Your task to perform on an android device: Clear all items from cart on ebay.com. Search for "alienware area 51" on ebay.com, select the first entry, add it to the cart, then select checkout. Image 0: 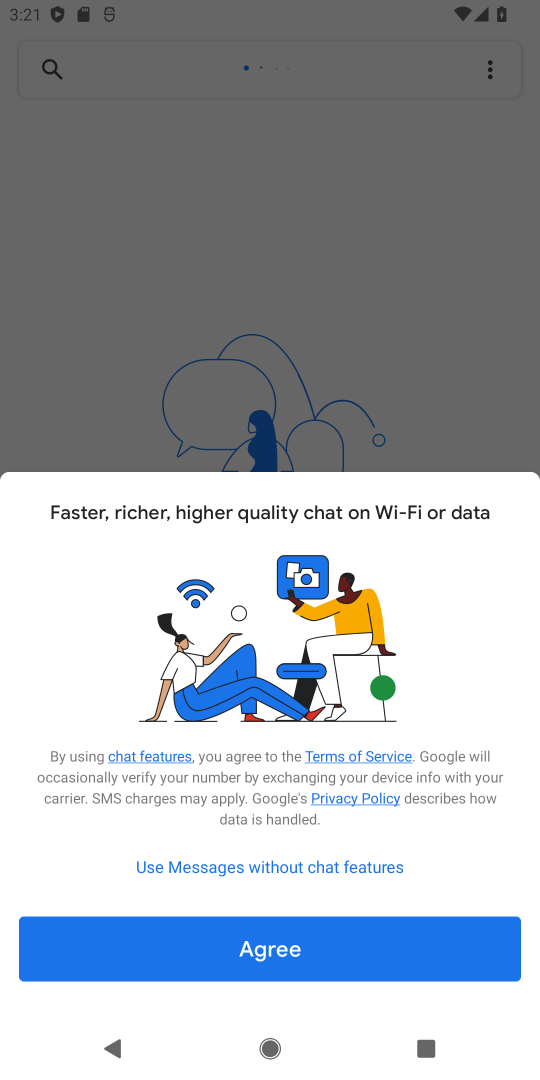
Step 0: press home button
Your task to perform on an android device: Clear all items from cart on ebay.com. Search for "alienware area 51" on ebay.com, select the first entry, add it to the cart, then select checkout. Image 1: 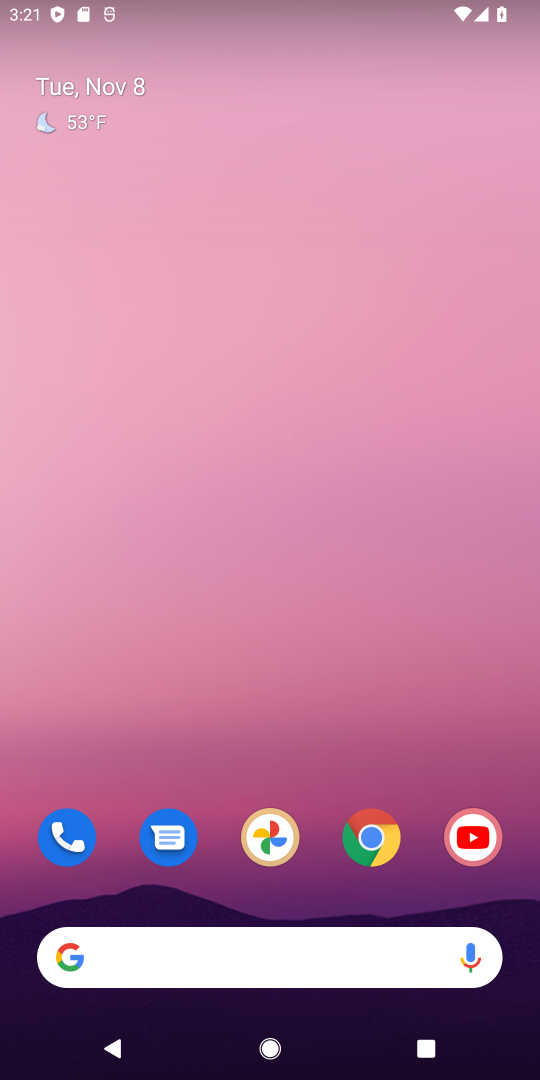
Step 1: click (381, 847)
Your task to perform on an android device: Clear all items from cart on ebay.com. Search for "alienware area 51" on ebay.com, select the first entry, add it to the cart, then select checkout. Image 2: 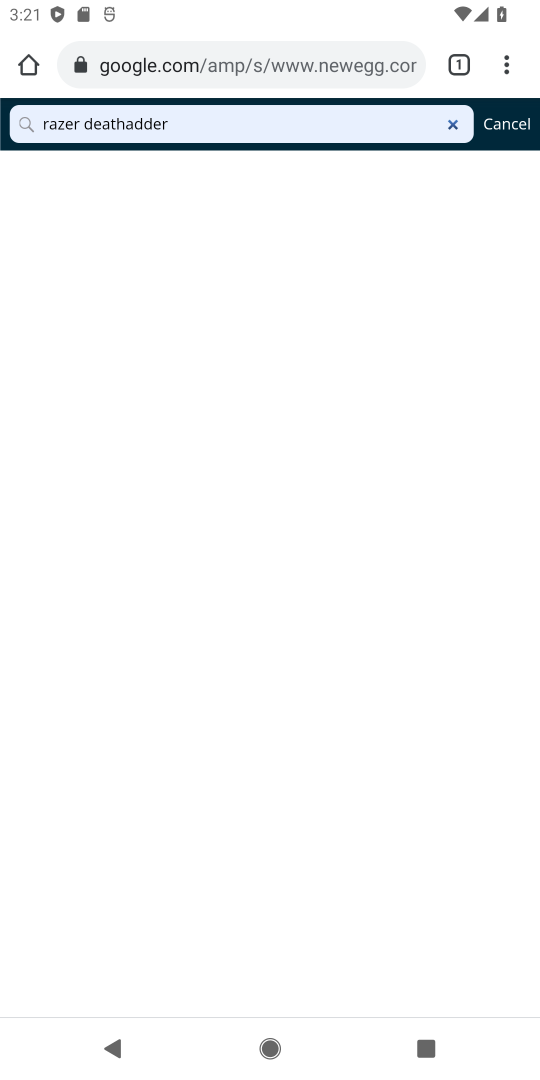
Step 2: click (249, 70)
Your task to perform on an android device: Clear all items from cart on ebay.com. Search for "alienware area 51" on ebay.com, select the first entry, add it to the cart, then select checkout. Image 3: 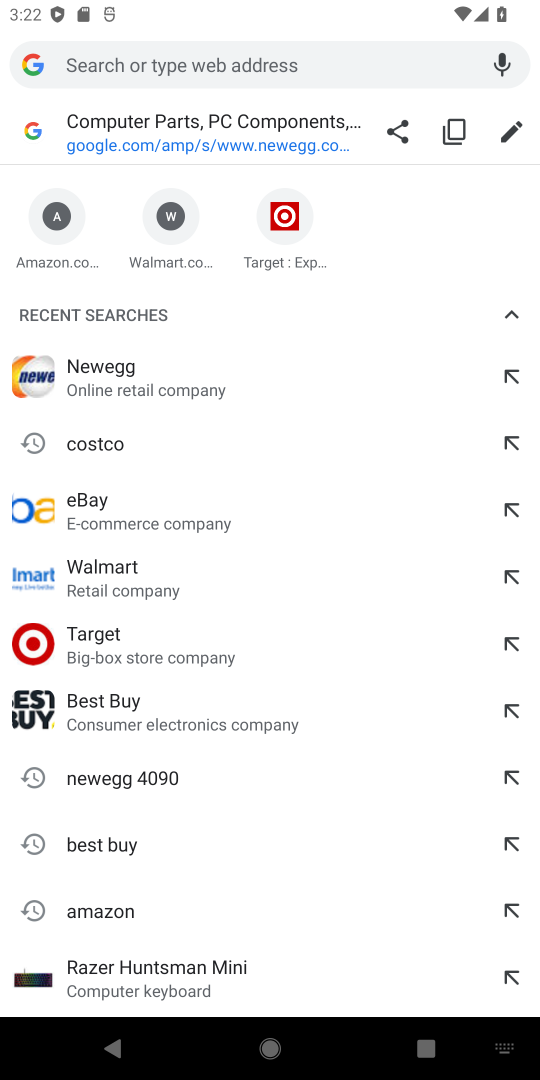
Step 3: click (88, 506)
Your task to perform on an android device: Clear all items from cart on ebay.com. Search for "alienware area 51" on ebay.com, select the first entry, add it to the cart, then select checkout. Image 4: 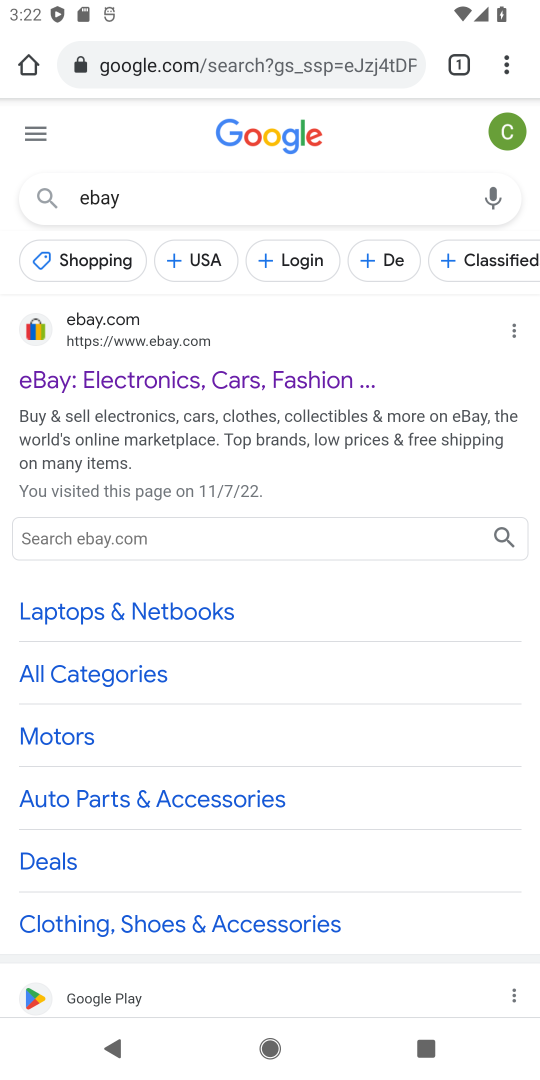
Step 4: click (116, 384)
Your task to perform on an android device: Clear all items from cart on ebay.com. Search for "alienware area 51" on ebay.com, select the first entry, add it to the cart, then select checkout. Image 5: 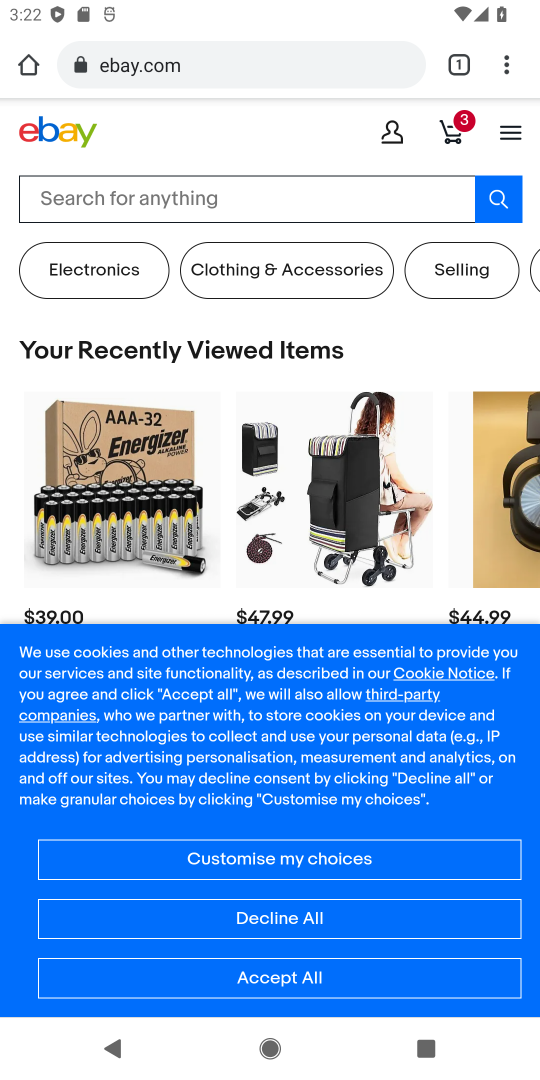
Step 5: click (449, 130)
Your task to perform on an android device: Clear all items from cart on ebay.com. Search for "alienware area 51" on ebay.com, select the first entry, add it to the cart, then select checkout. Image 6: 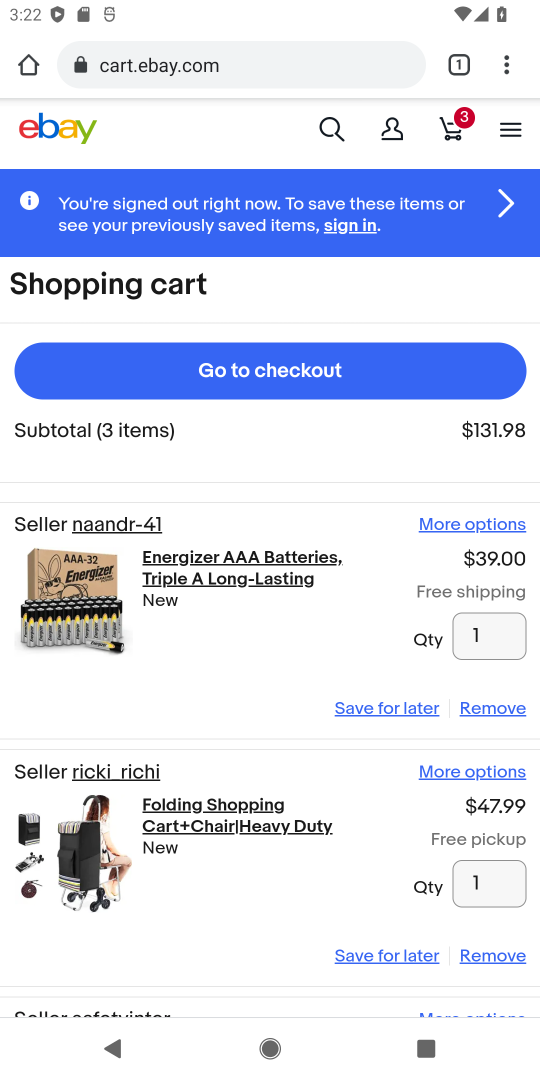
Step 6: click (479, 705)
Your task to perform on an android device: Clear all items from cart on ebay.com. Search for "alienware area 51" on ebay.com, select the first entry, add it to the cart, then select checkout. Image 7: 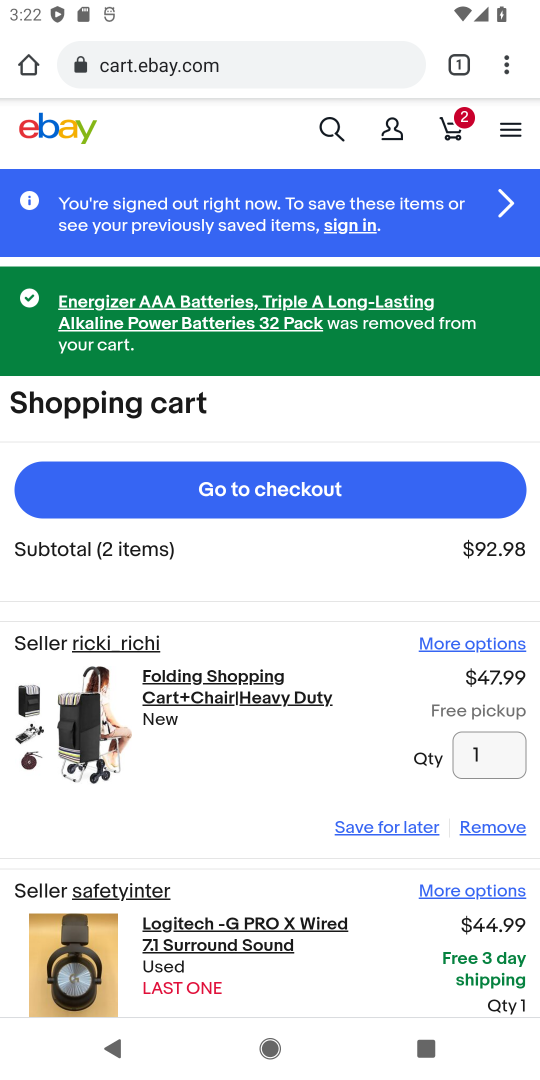
Step 7: click (496, 821)
Your task to perform on an android device: Clear all items from cart on ebay.com. Search for "alienware area 51" on ebay.com, select the first entry, add it to the cart, then select checkout. Image 8: 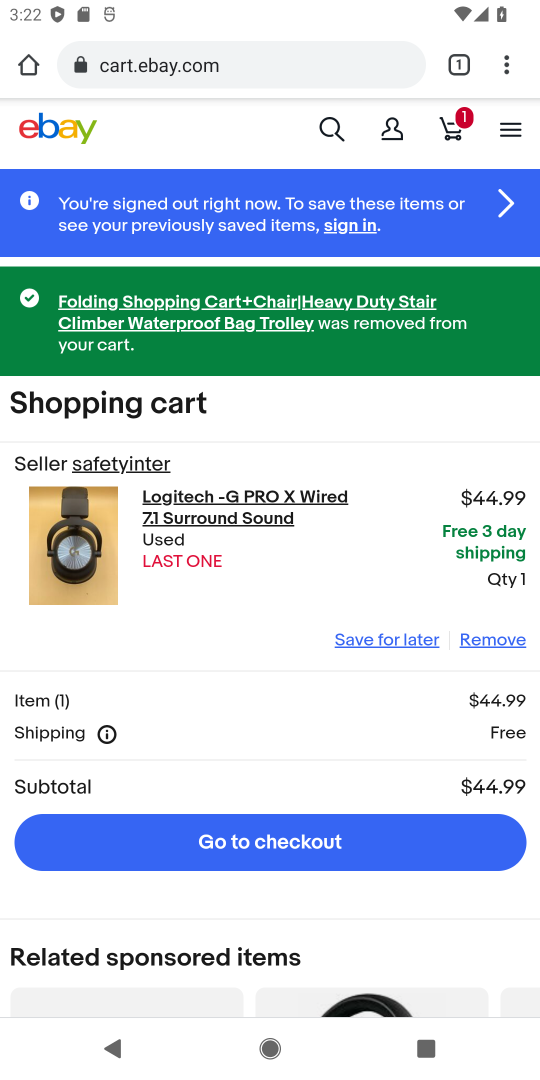
Step 8: click (478, 639)
Your task to perform on an android device: Clear all items from cart on ebay.com. Search for "alienware area 51" on ebay.com, select the first entry, add it to the cart, then select checkout. Image 9: 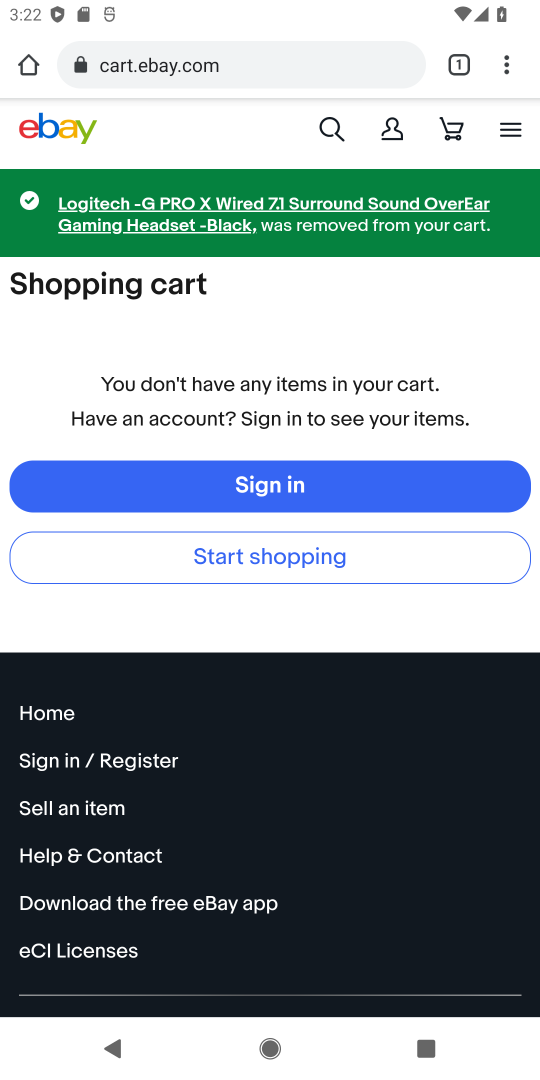
Step 9: click (332, 126)
Your task to perform on an android device: Clear all items from cart on ebay.com. Search for "alienware area 51" on ebay.com, select the first entry, add it to the cart, then select checkout. Image 10: 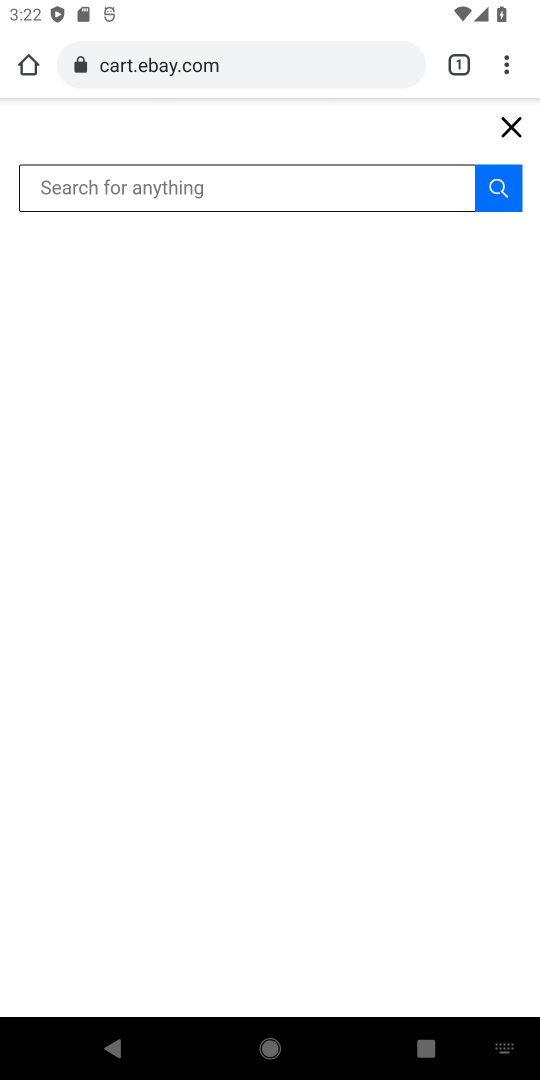
Step 10: type "alienware area 51"
Your task to perform on an android device: Clear all items from cart on ebay.com. Search for "alienware area 51" on ebay.com, select the first entry, add it to the cart, then select checkout. Image 11: 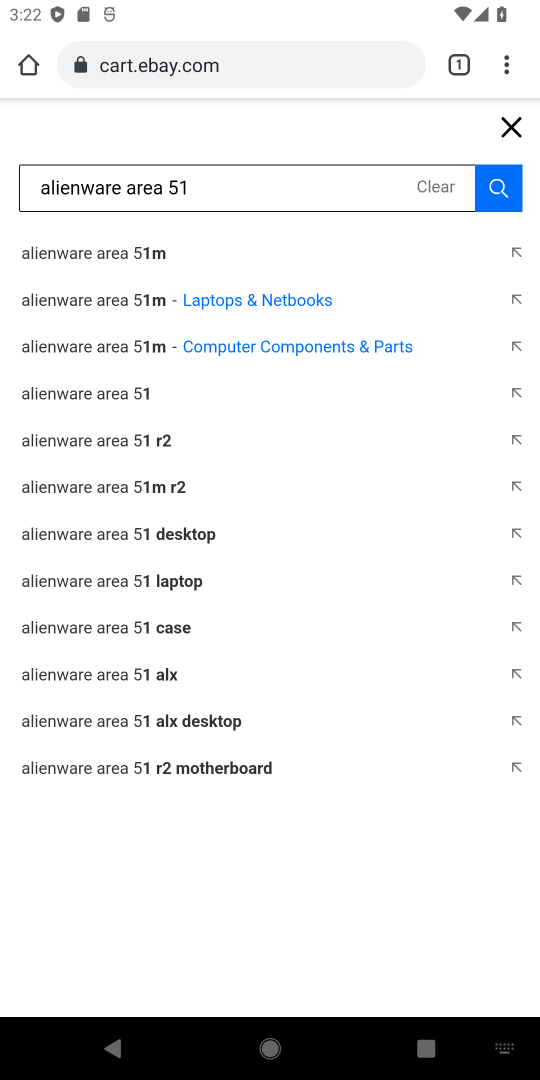
Step 11: click (147, 256)
Your task to perform on an android device: Clear all items from cart on ebay.com. Search for "alienware area 51" on ebay.com, select the first entry, add it to the cart, then select checkout. Image 12: 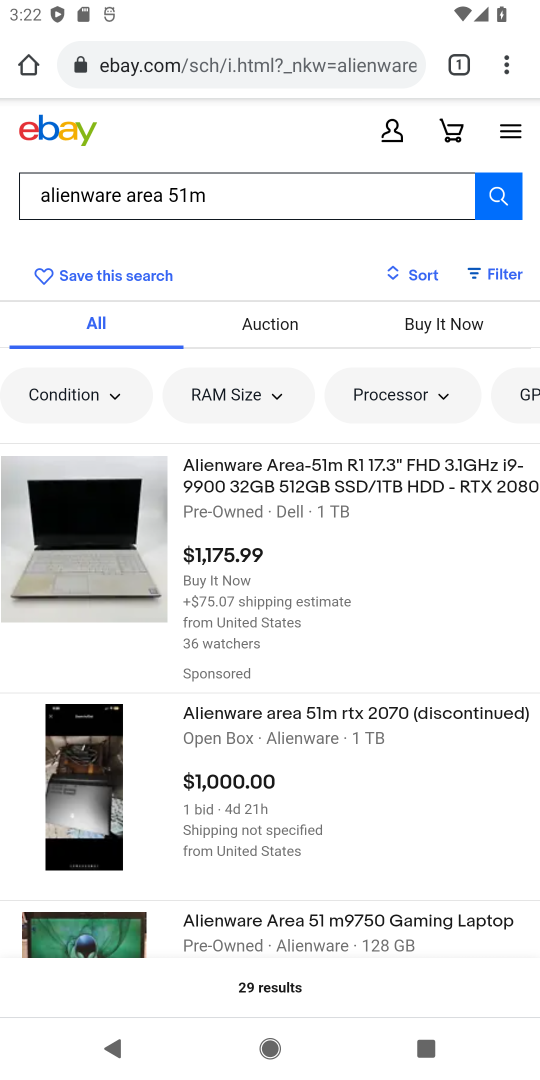
Step 12: click (291, 487)
Your task to perform on an android device: Clear all items from cart on ebay.com. Search for "alienware area 51" on ebay.com, select the first entry, add it to the cart, then select checkout. Image 13: 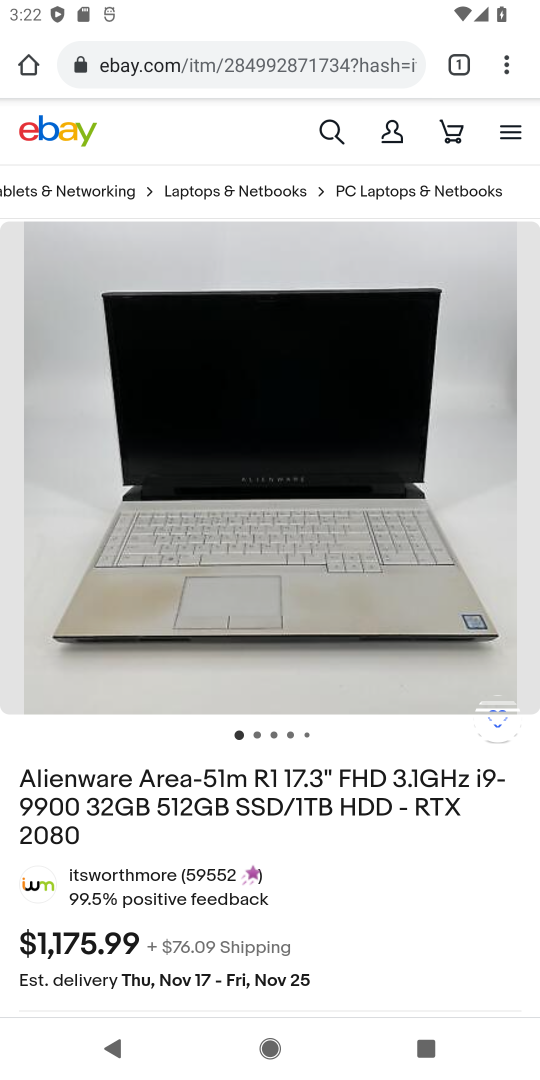
Step 13: drag from (332, 659) to (247, 409)
Your task to perform on an android device: Clear all items from cart on ebay.com. Search for "alienware area 51" on ebay.com, select the first entry, add it to the cart, then select checkout. Image 14: 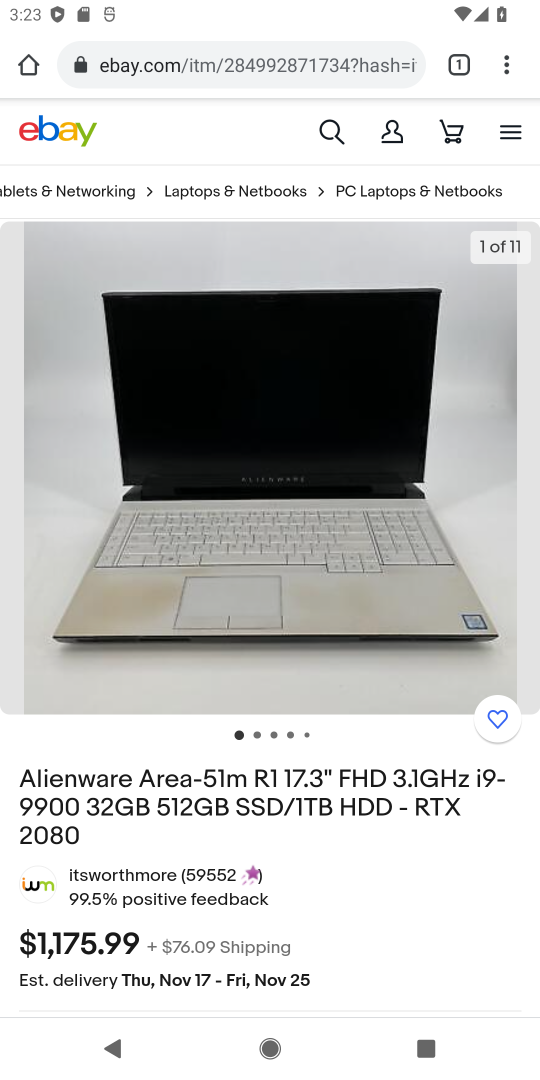
Step 14: drag from (363, 809) to (379, 464)
Your task to perform on an android device: Clear all items from cart on ebay.com. Search for "alienware area 51" on ebay.com, select the first entry, add it to the cart, then select checkout. Image 15: 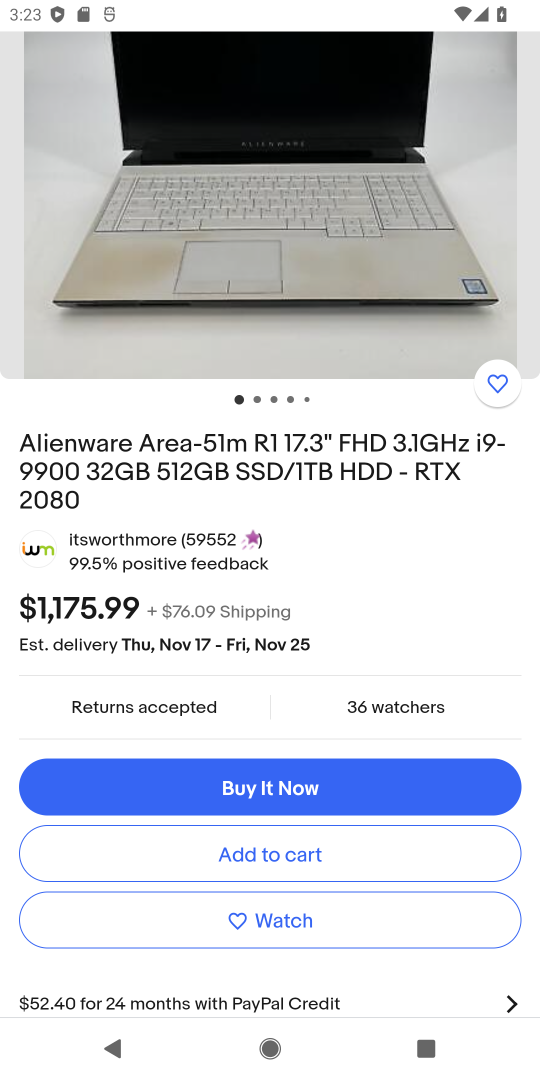
Step 15: click (274, 852)
Your task to perform on an android device: Clear all items from cart on ebay.com. Search for "alienware area 51" on ebay.com, select the first entry, add it to the cart, then select checkout. Image 16: 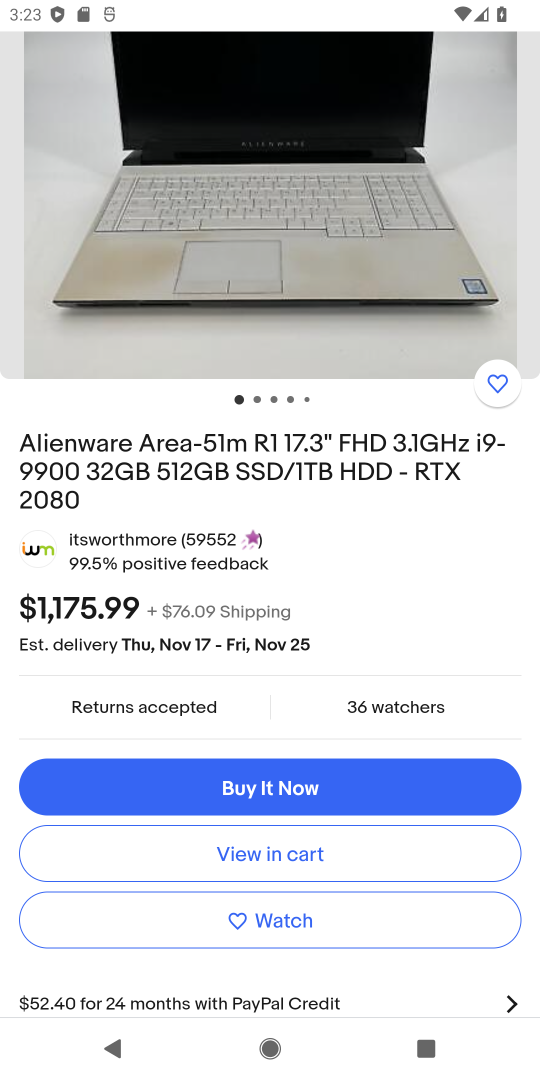
Step 16: click (267, 856)
Your task to perform on an android device: Clear all items from cart on ebay.com. Search for "alienware area 51" on ebay.com, select the first entry, add it to the cart, then select checkout. Image 17: 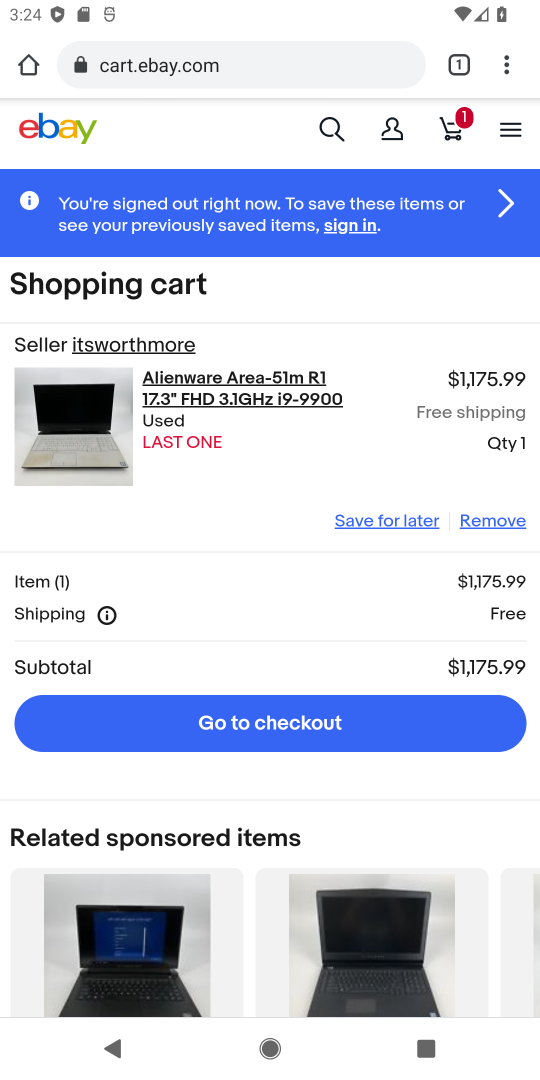
Step 17: click (249, 733)
Your task to perform on an android device: Clear all items from cart on ebay.com. Search for "alienware area 51" on ebay.com, select the first entry, add it to the cart, then select checkout. Image 18: 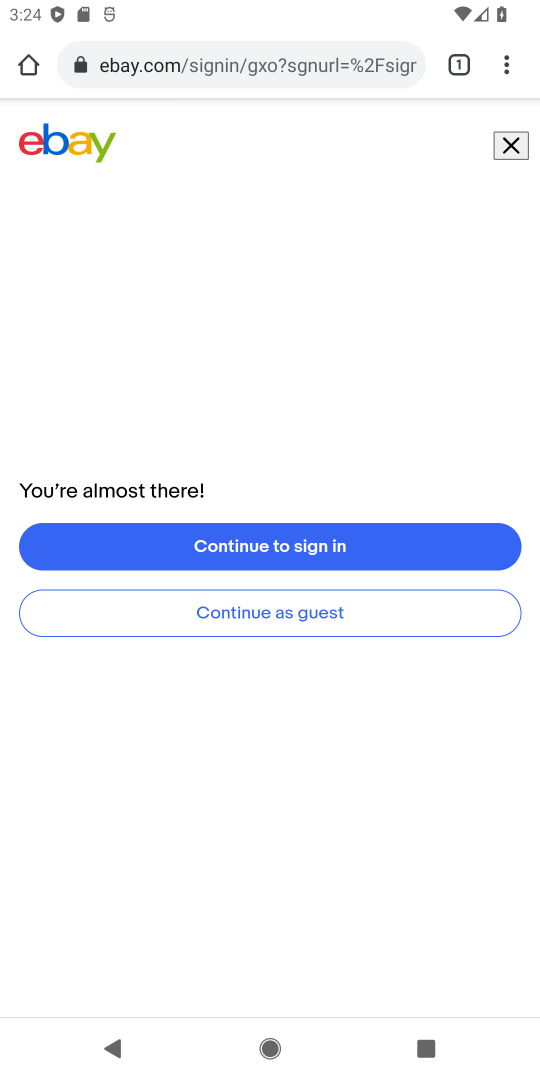
Step 18: task complete